Your task to perform on an android device: turn on improve location accuracy Image 0: 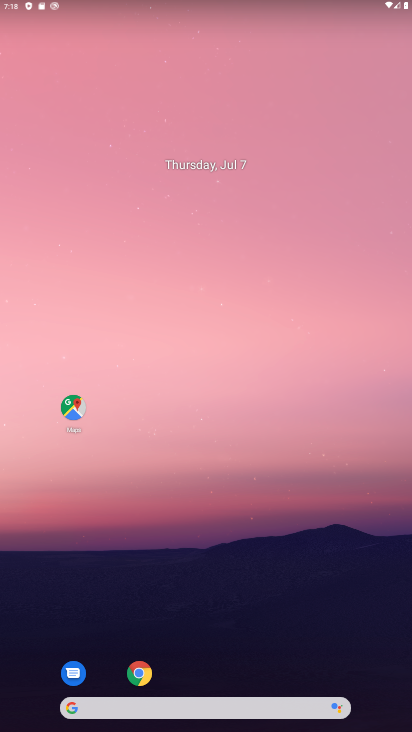
Step 0: drag from (217, 577) to (130, 77)
Your task to perform on an android device: turn on improve location accuracy Image 1: 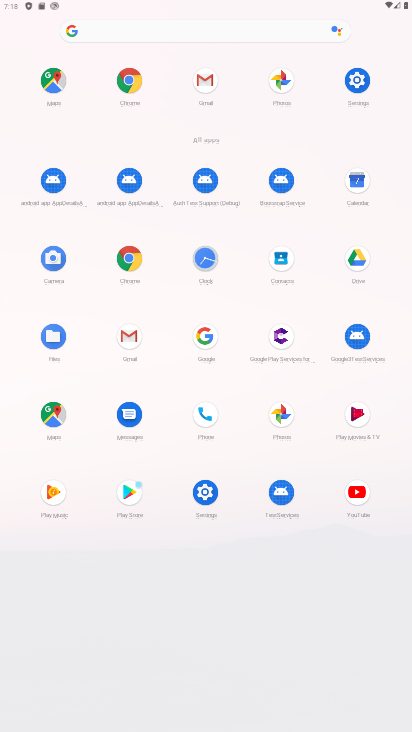
Step 1: click (358, 78)
Your task to perform on an android device: turn on improve location accuracy Image 2: 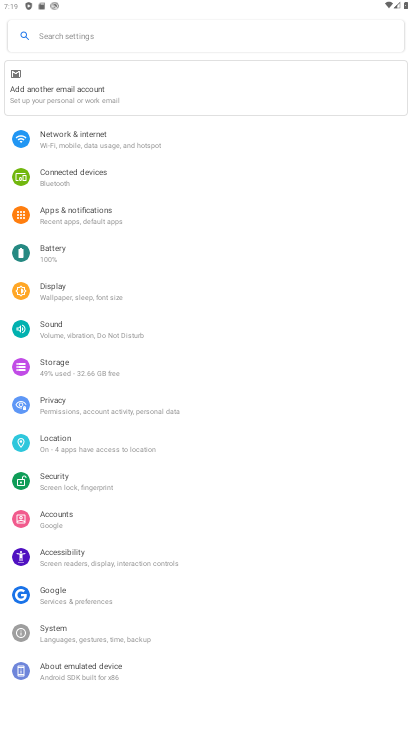
Step 2: click (101, 452)
Your task to perform on an android device: turn on improve location accuracy Image 3: 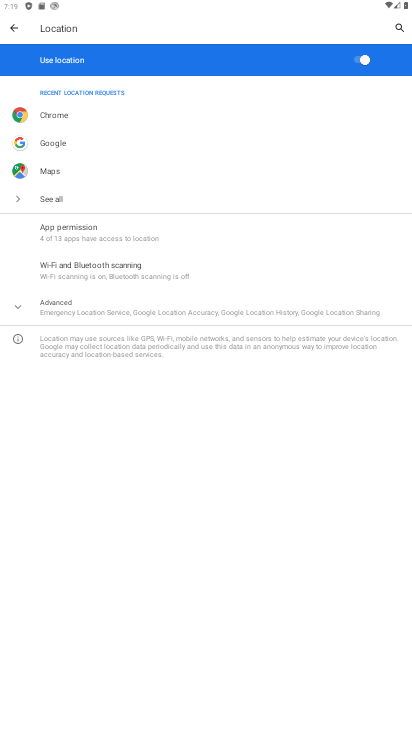
Step 3: click (138, 314)
Your task to perform on an android device: turn on improve location accuracy Image 4: 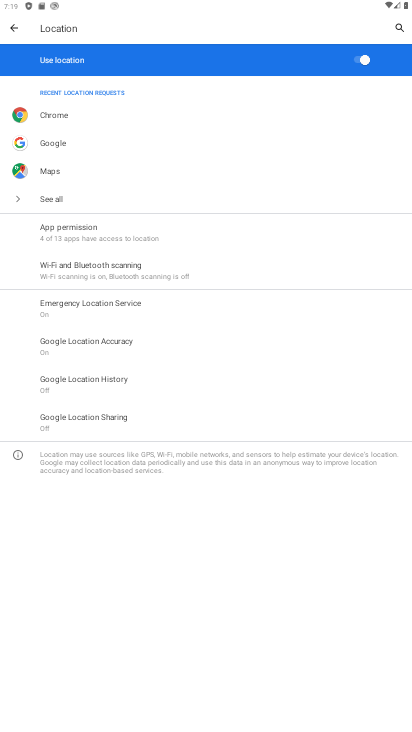
Step 4: click (120, 339)
Your task to perform on an android device: turn on improve location accuracy Image 5: 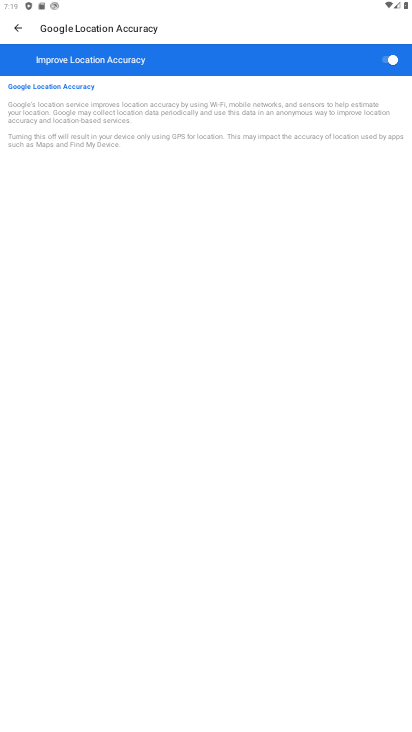
Step 5: task complete